Your task to perform on an android device: move a message to another label in the gmail app Image 0: 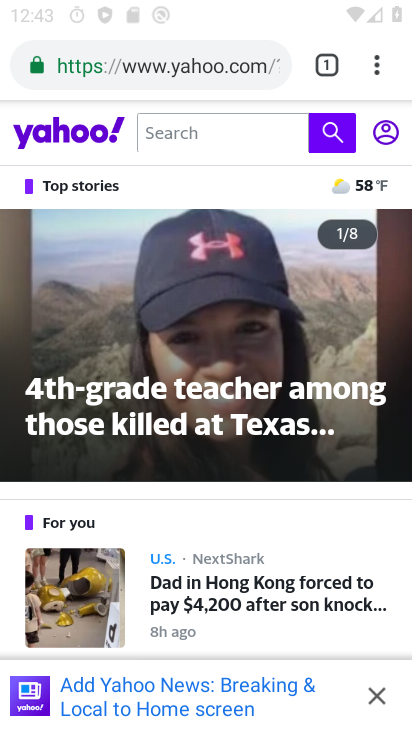
Step 0: drag from (197, 712) to (202, 101)
Your task to perform on an android device: move a message to another label in the gmail app Image 1: 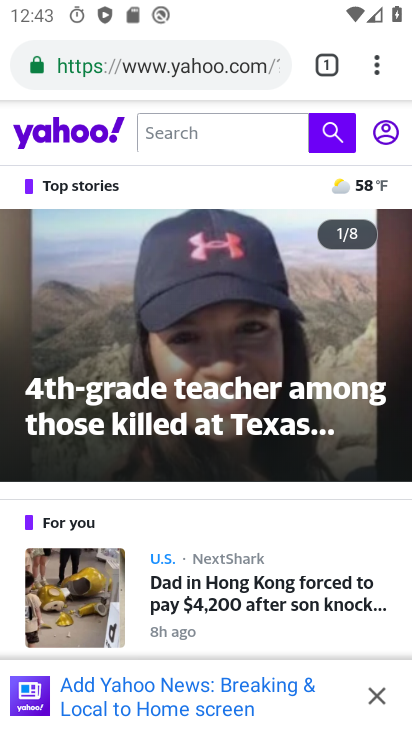
Step 1: press home button
Your task to perform on an android device: move a message to another label in the gmail app Image 2: 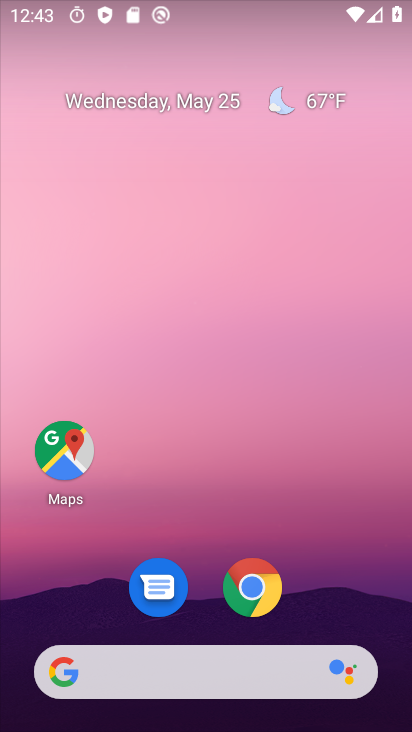
Step 2: drag from (222, 729) to (224, 160)
Your task to perform on an android device: move a message to another label in the gmail app Image 3: 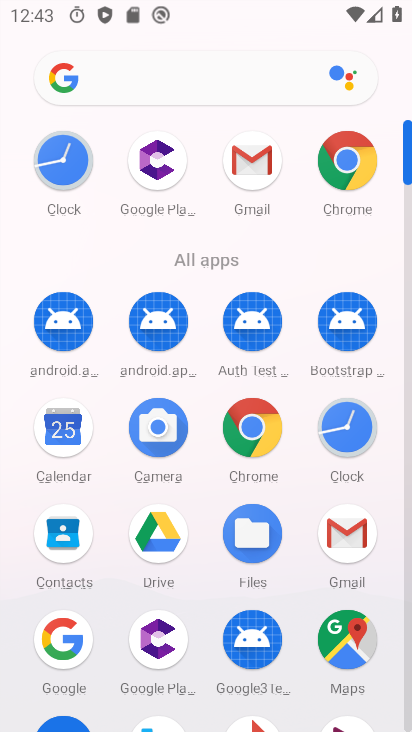
Step 3: click (353, 533)
Your task to perform on an android device: move a message to another label in the gmail app Image 4: 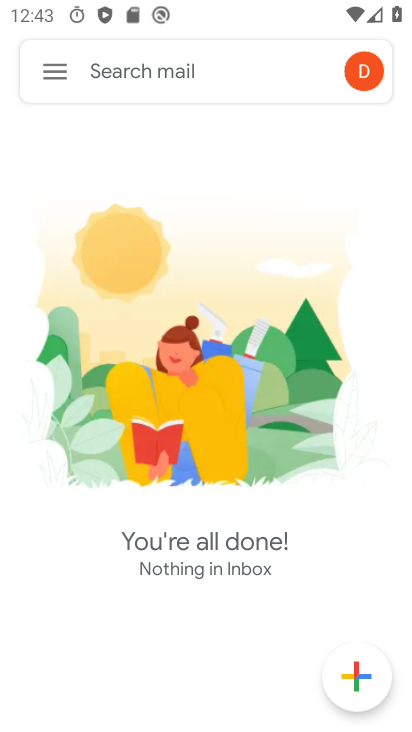
Step 4: task complete